Your task to perform on an android device: Play the last video I watched on Youtube Image 0: 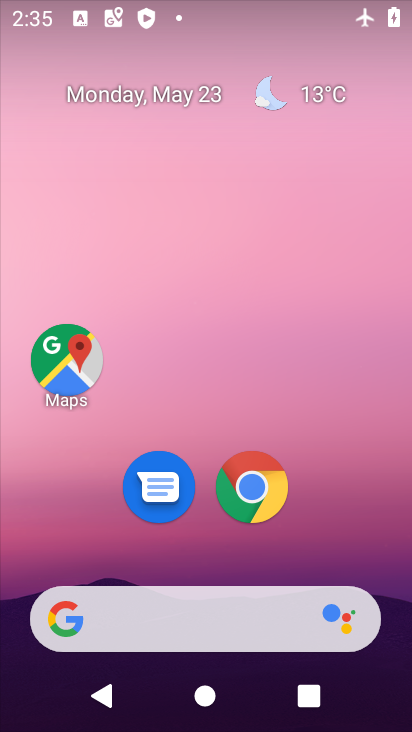
Step 0: drag from (386, 603) to (352, 193)
Your task to perform on an android device: Play the last video I watched on Youtube Image 1: 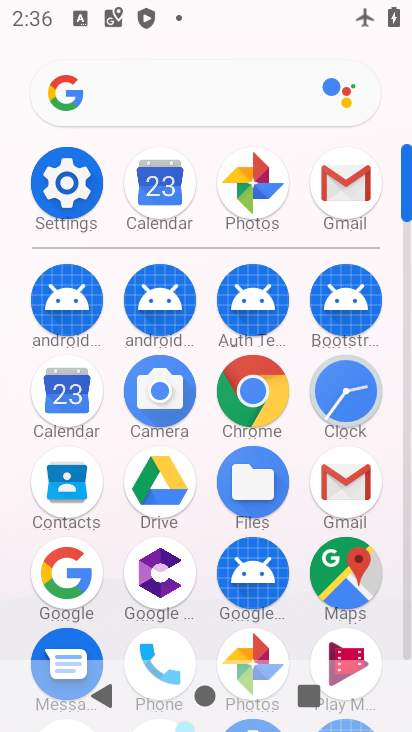
Step 1: click (408, 627)
Your task to perform on an android device: Play the last video I watched on Youtube Image 2: 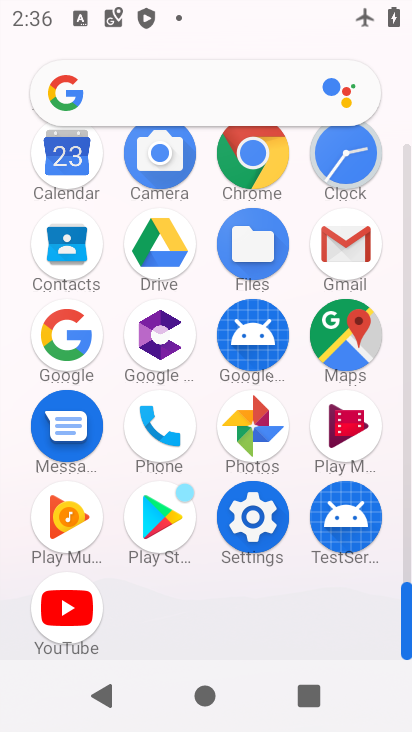
Step 2: click (63, 611)
Your task to perform on an android device: Play the last video I watched on Youtube Image 3: 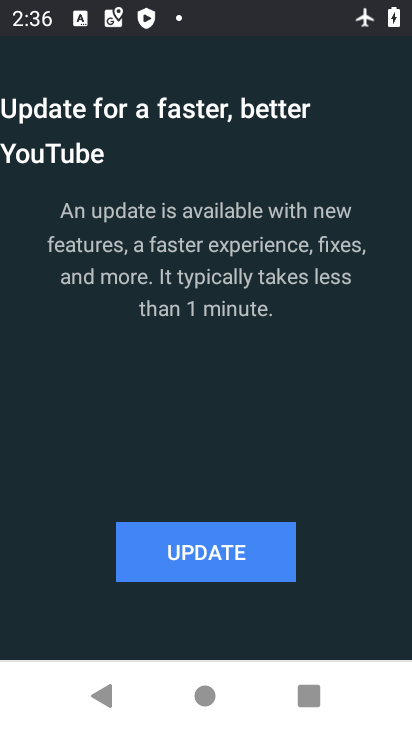
Step 3: click (198, 554)
Your task to perform on an android device: Play the last video I watched on Youtube Image 4: 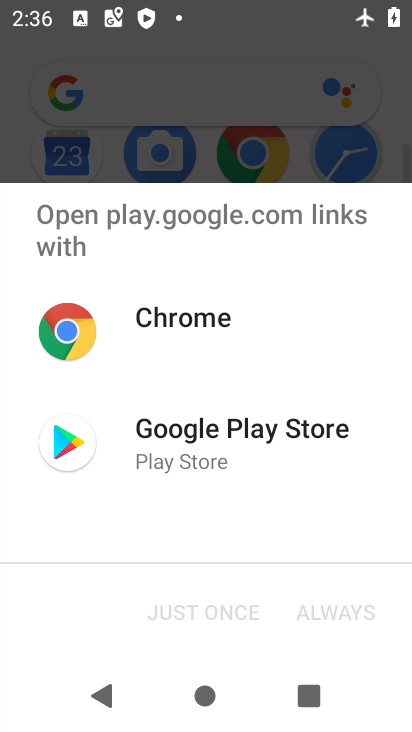
Step 4: click (149, 440)
Your task to perform on an android device: Play the last video I watched on Youtube Image 5: 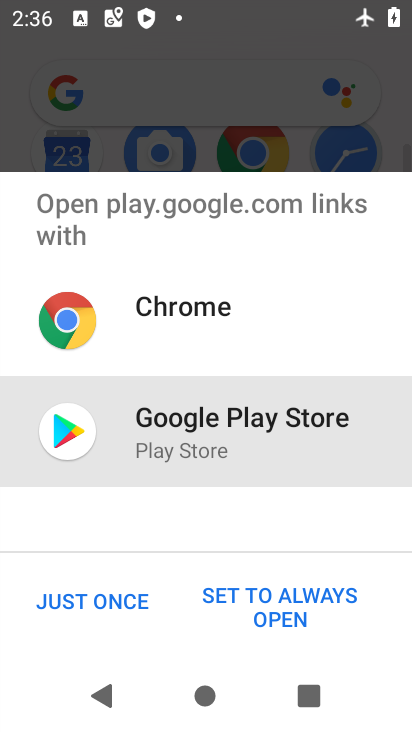
Step 5: click (100, 605)
Your task to perform on an android device: Play the last video I watched on Youtube Image 6: 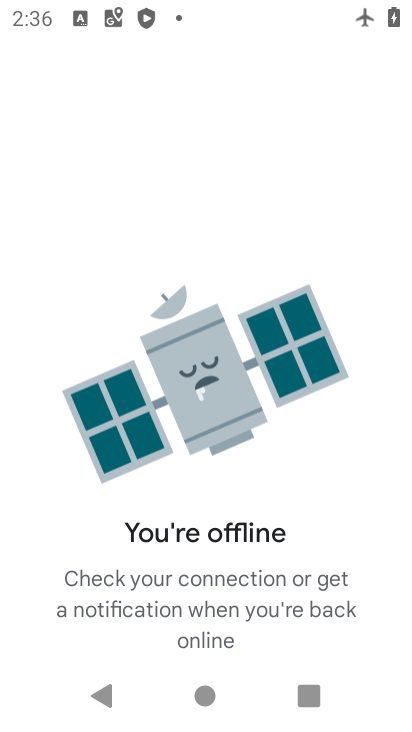
Step 6: task complete